Your task to perform on an android device: turn on showing notifications on the lock screen Image 0: 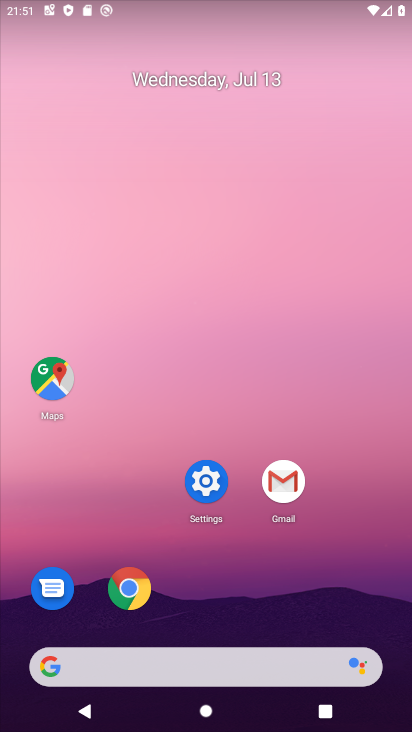
Step 0: drag from (402, 682) to (368, 116)
Your task to perform on an android device: turn on showing notifications on the lock screen Image 1: 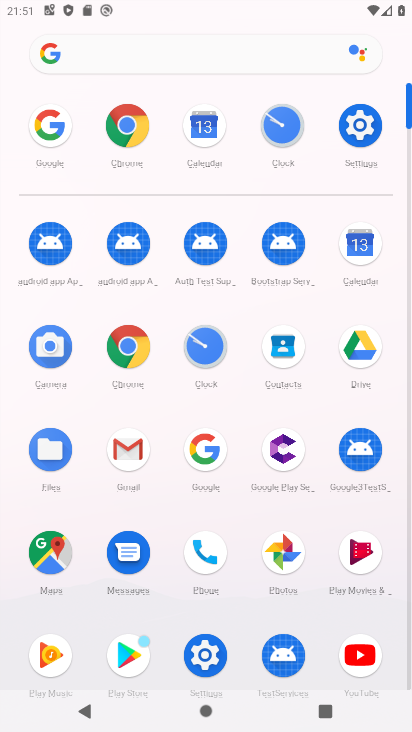
Step 1: click (358, 131)
Your task to perform on an android device: turn on showing notifications on the lock screen Image 2: 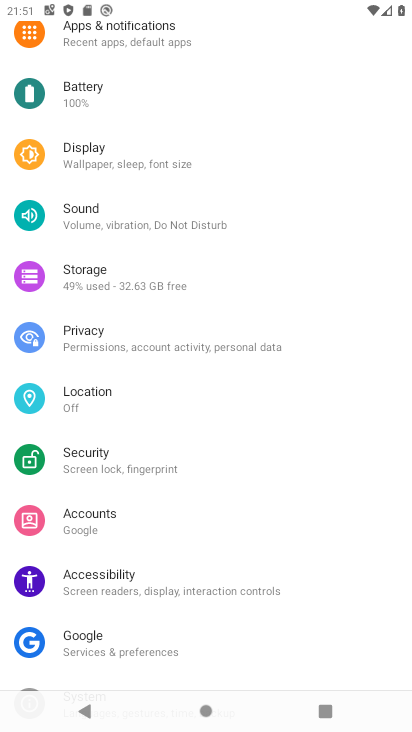
Step 2: click (131, 31)
Your task to perform on an android device: turn on showing notifications on the lock screen Image 3: 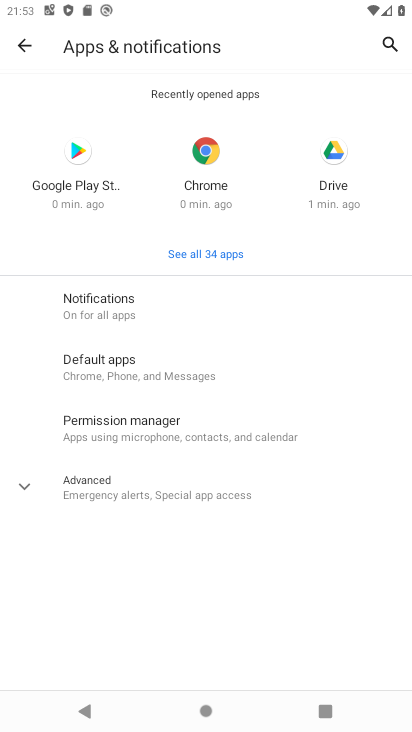
Step 3: click (92, 295)
Your task to perform on an android device: turn on showing notifications on the lock screen Image 4: 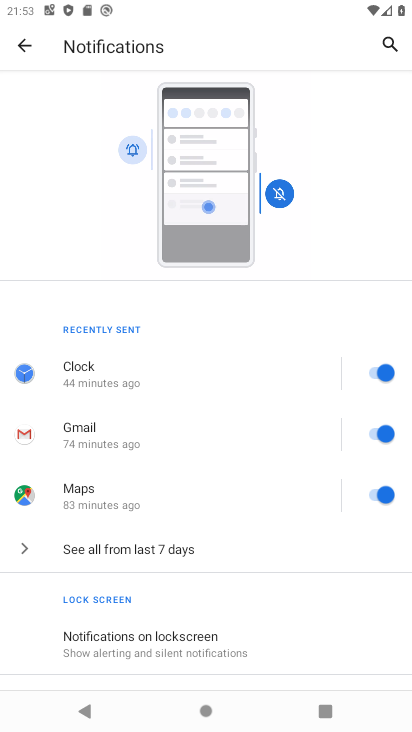
Step 4: click (110, 641)
Your task to perform on an android device: turn on showing notifications on the lock screen Image 5: 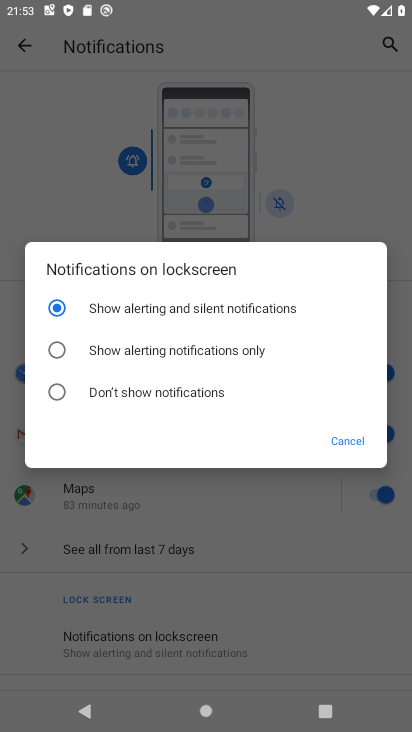
Step 5: task complete